Your task to perform on an android device: Add "apple airpods pro" to the cart on amazon.com Image 0: 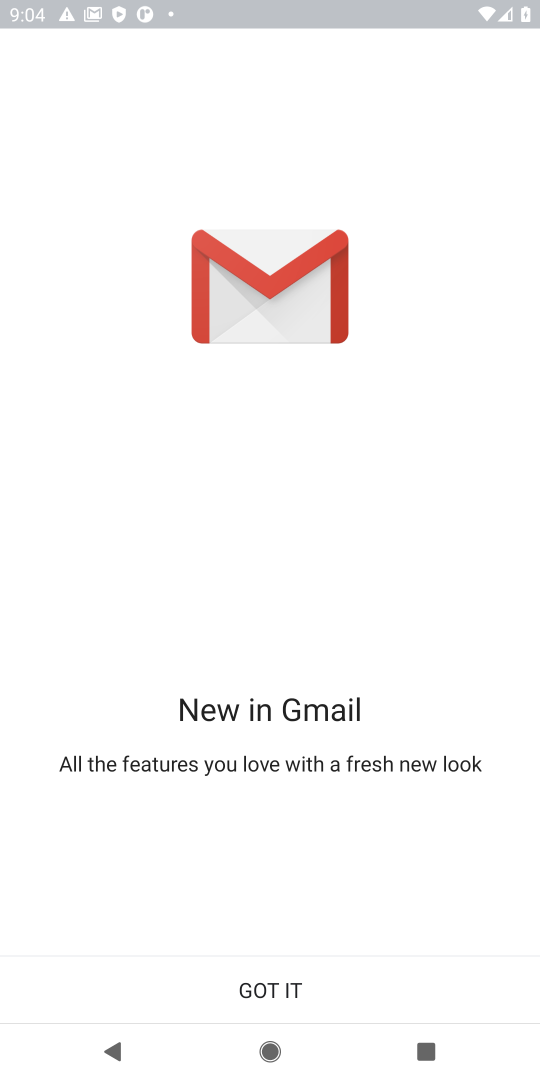
Step 0: press home button
Your task to perform on an android device: Add "apple airpods pro" to the cart on amazon.com Image 1: 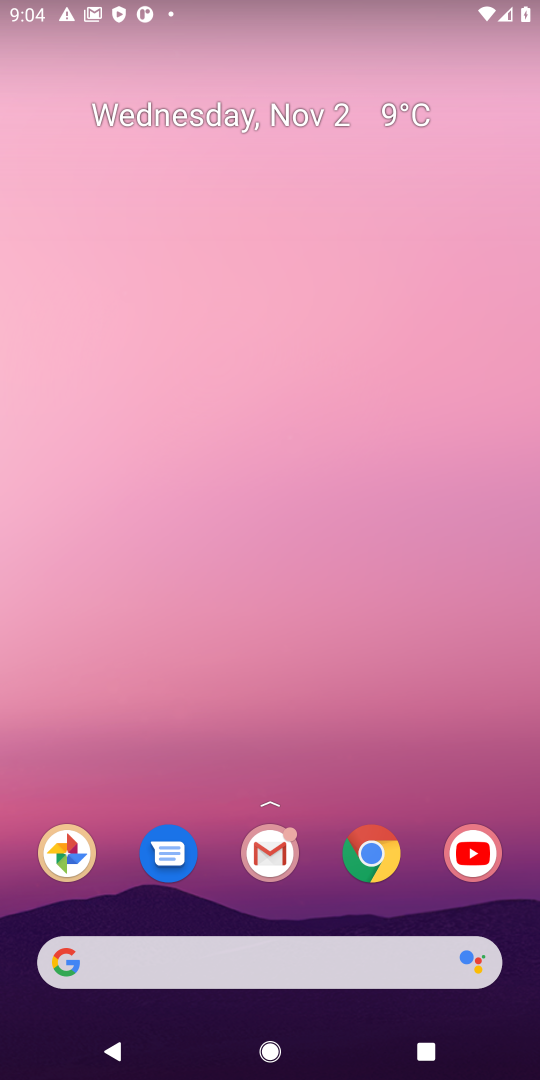
Step 1: click (375, 848)
Your task to perform on an android device: Add "apple airpods pro" to the cart on amazon.com Image 2: 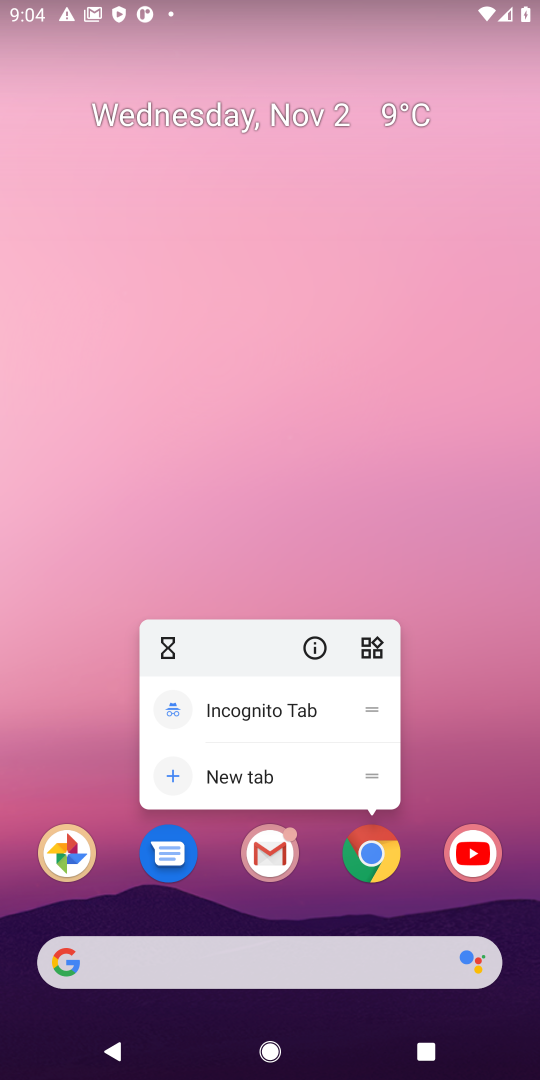
Step 2: click (375, 849)
Your task to perform on an android device: Add "apple airpods pro" to the cart on amazon.com Image 3: 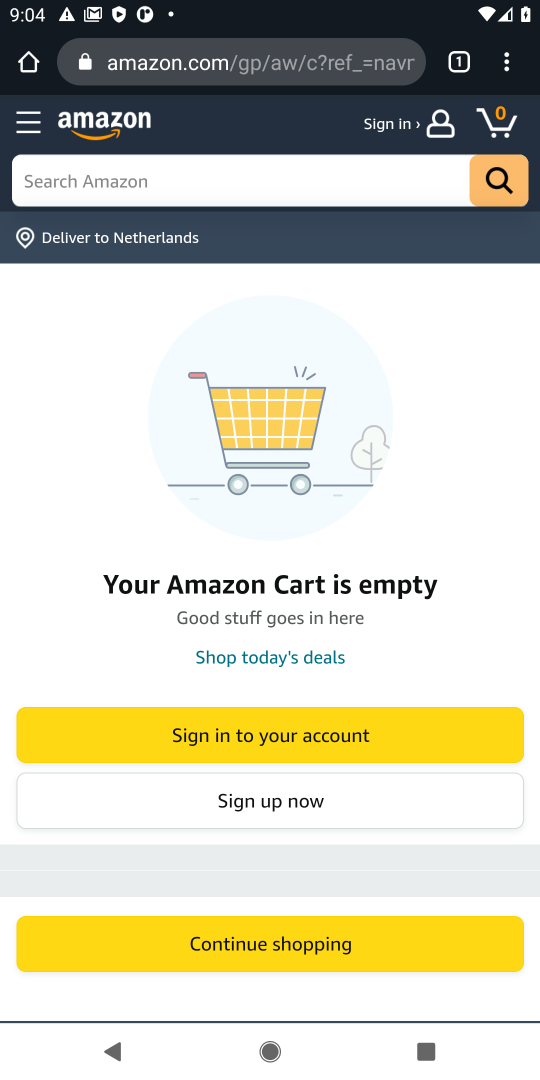
Step 3: click (275, 54)
Your task to perform on an android device: Add "apple airpods pro" to the cart on amazon.com Image 4: 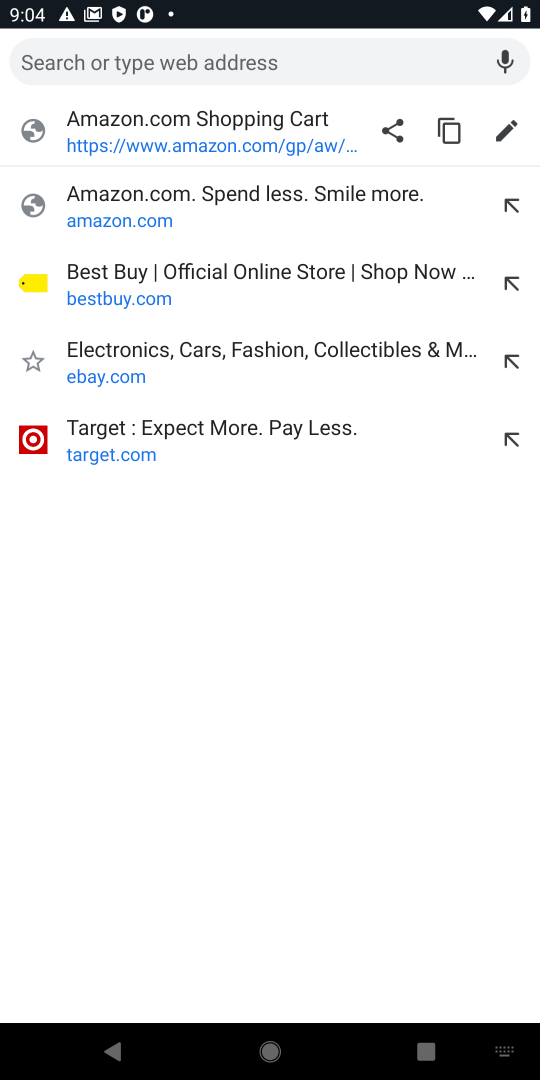
Step 4: click (173, 125)
Your task to perform on an android device: Add "apple airpods pro" to the cart on amazon.com Image 5: 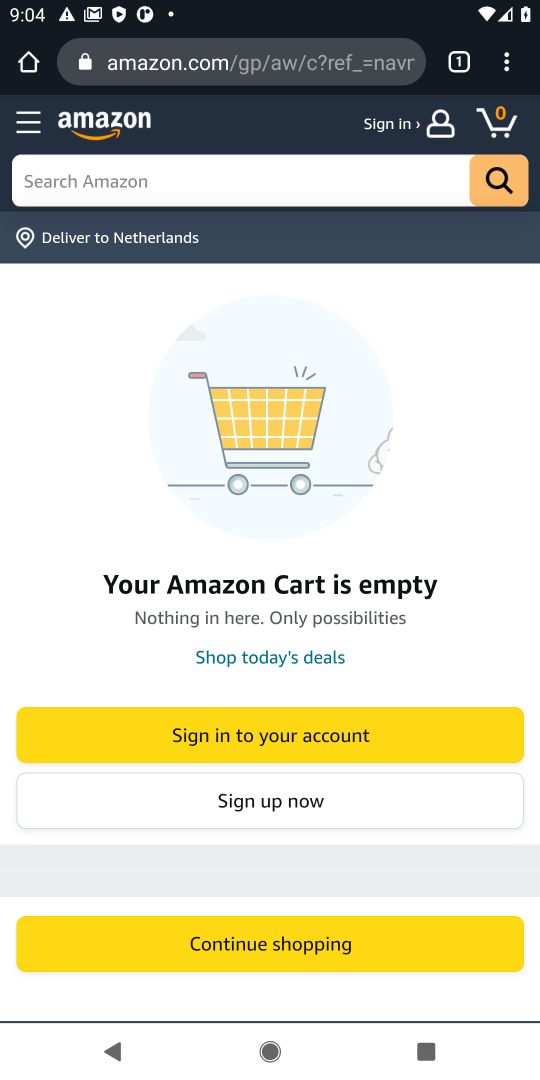
Step 5: click (129, 171)
Your task to perform on an android device: Add "apple airpods pro" to the cart on amazon.com Image 6: 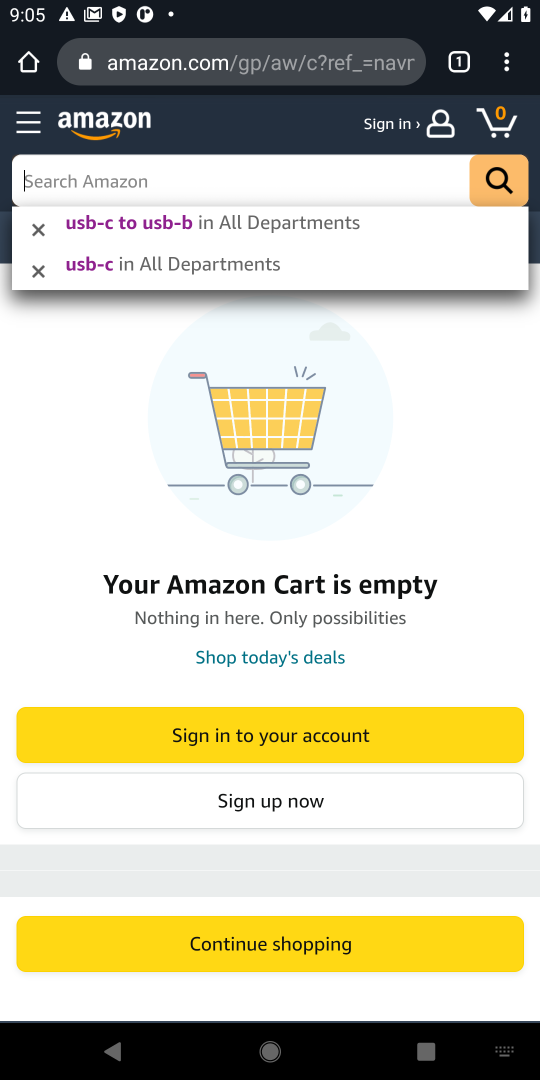
Step 6: type "apple airpods pro"
Your task to perform on an android device: Add "apple airpods pro" to the cart on amazon.com Image 7: 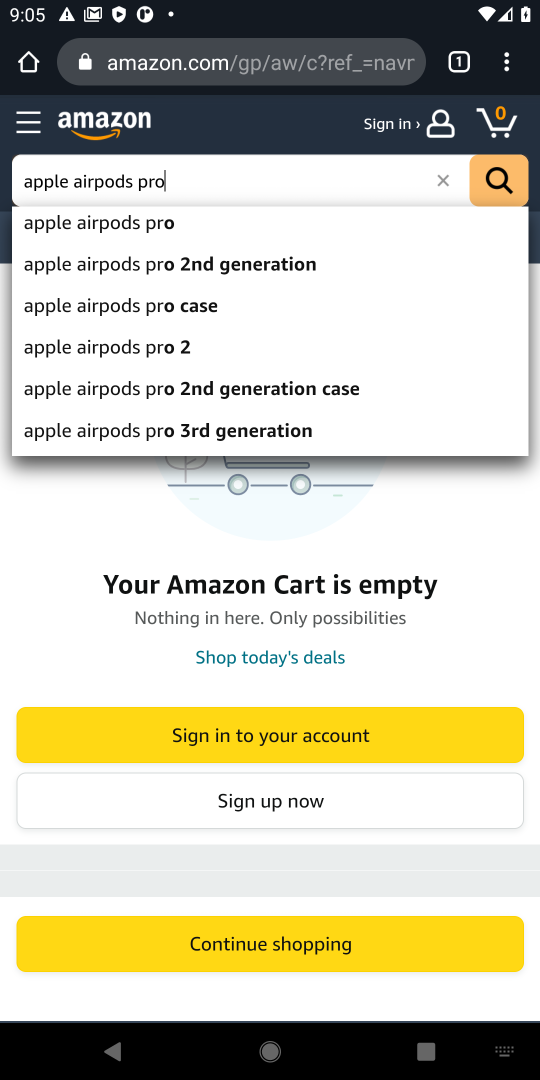
Step 7: press enter
Your task to perform on an android device: Add "apple airpods pro" to the cart on amazon.com Image 8: 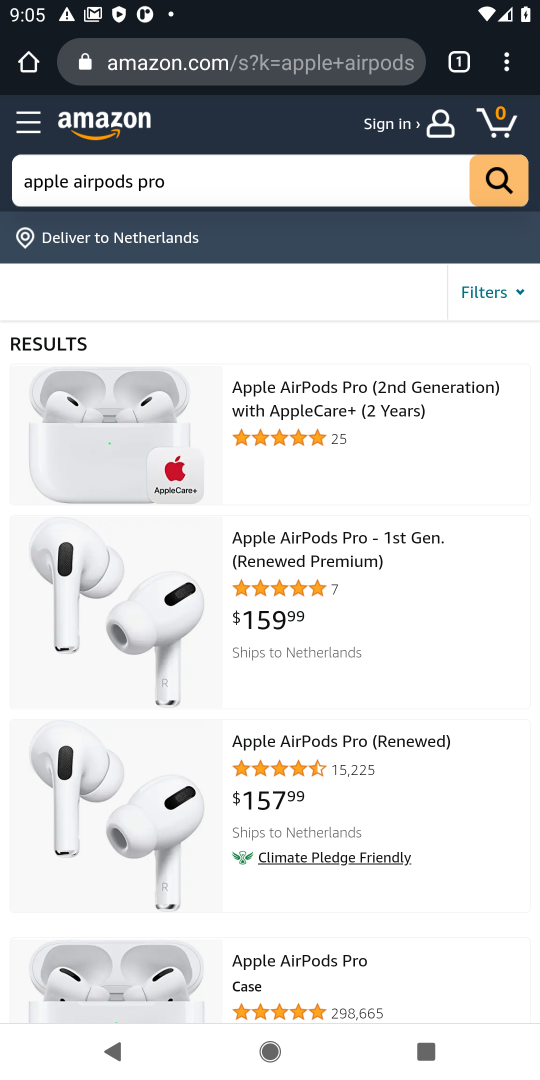
Step 8: click (297, 401)
Your task to perform on an android device: Add "apple airpods pro" to the cart on amazon.com Image 9: 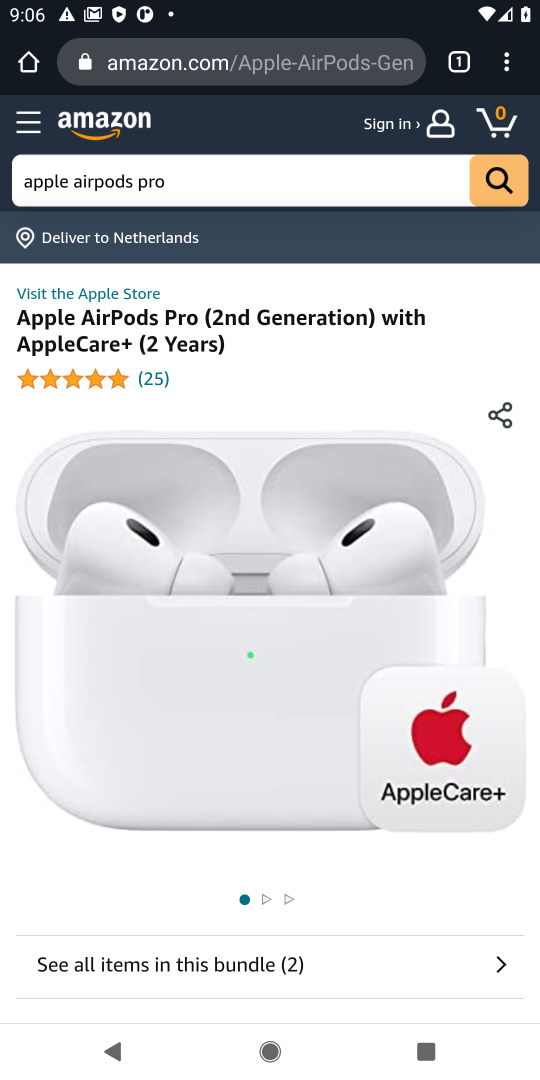
Step 9: drag from (207, 881) to (319, 630)
Your task to perform on an android device: Add "apple airpods pro" to the cart on amazon.com Image 10: 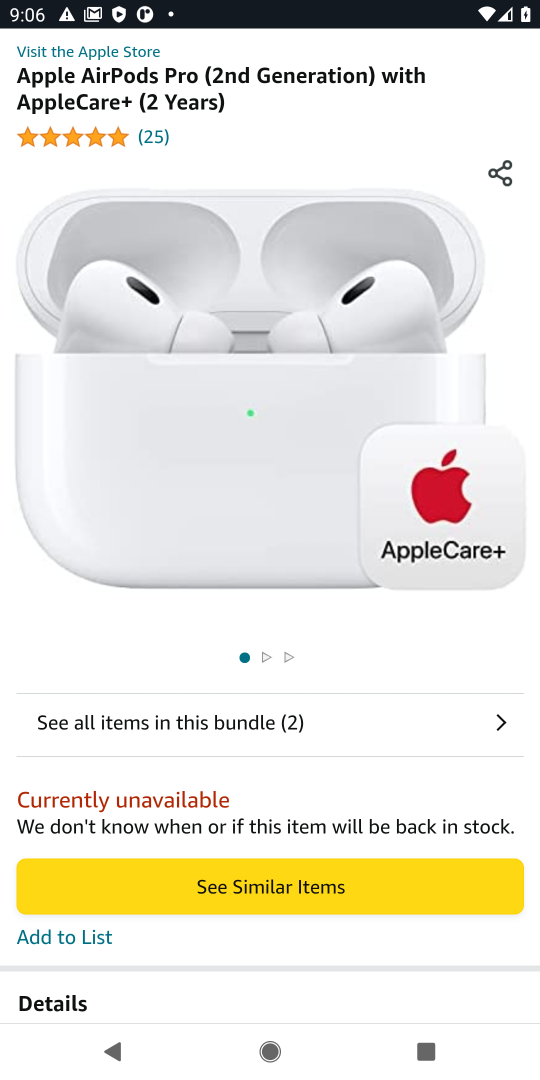
Step 10: drag from (273, 773) to (353, 187)
Your task to perform on an android device: Add "apple airpods pro" to the cart on amazon.com Image 11: 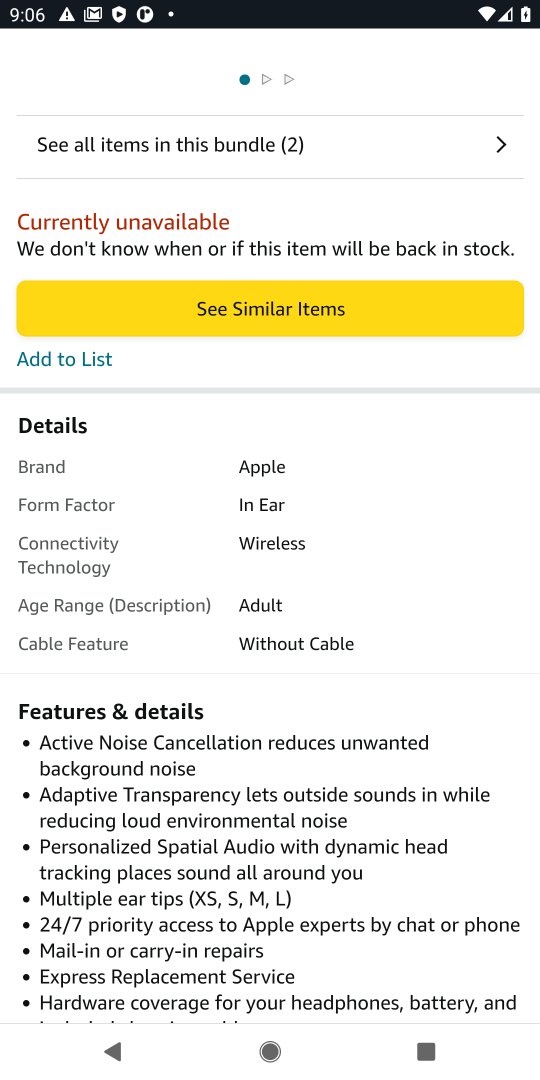
Step 11: press back button
Your task to perform on an android device: Add "apple airpods pro" to the cart on amazon.com Image 12: 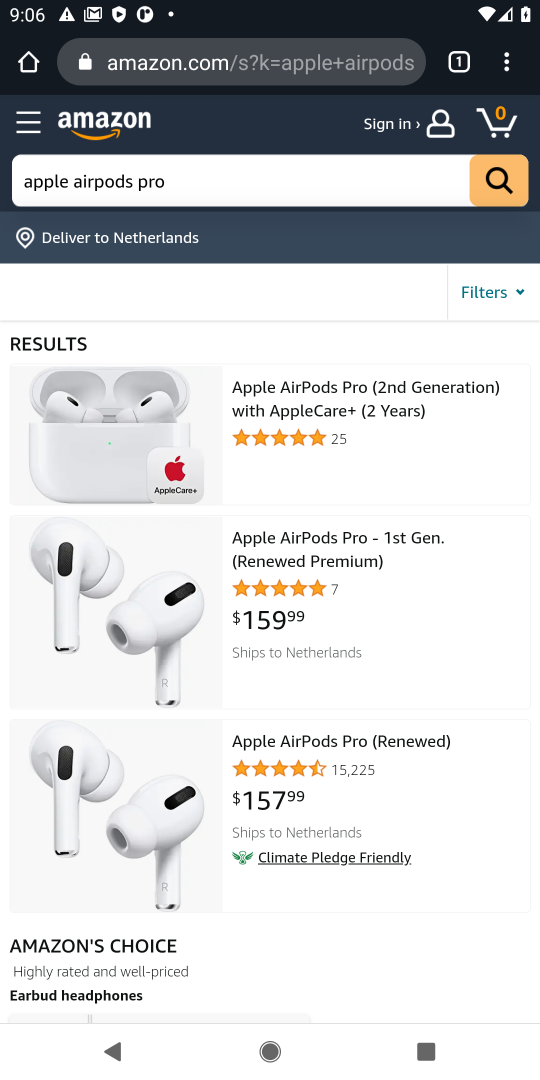
Step 12: click (324, 588)
Your task to perform on an android device: Add "apple airpods pro" to the cart on amazon.com Image 13: 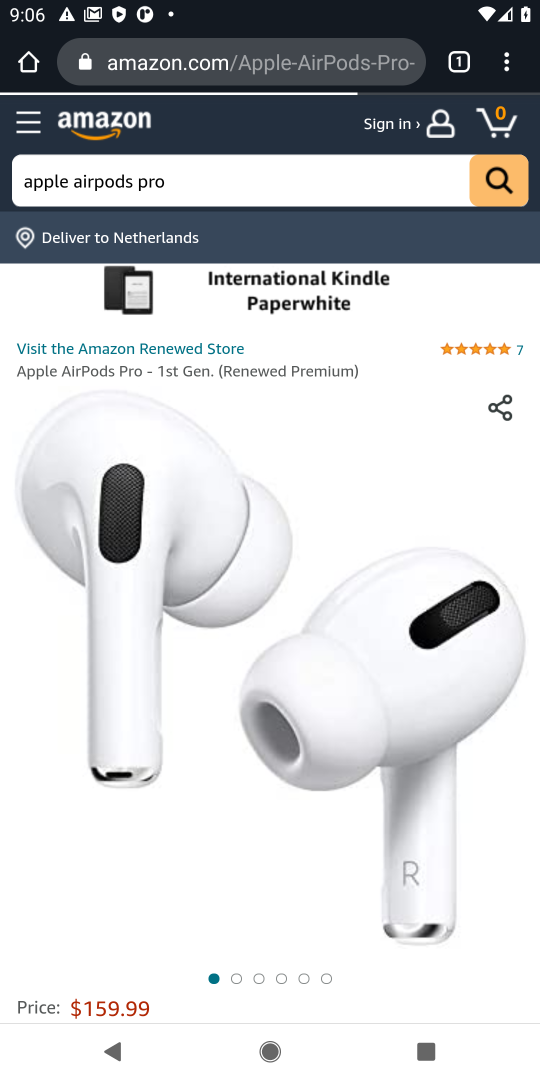
Step 13: drag from (201, 864) to (342, 275)
Your task to perform on an android device: Add "apple airpods pro" to the cart on amazon.com Image 14: 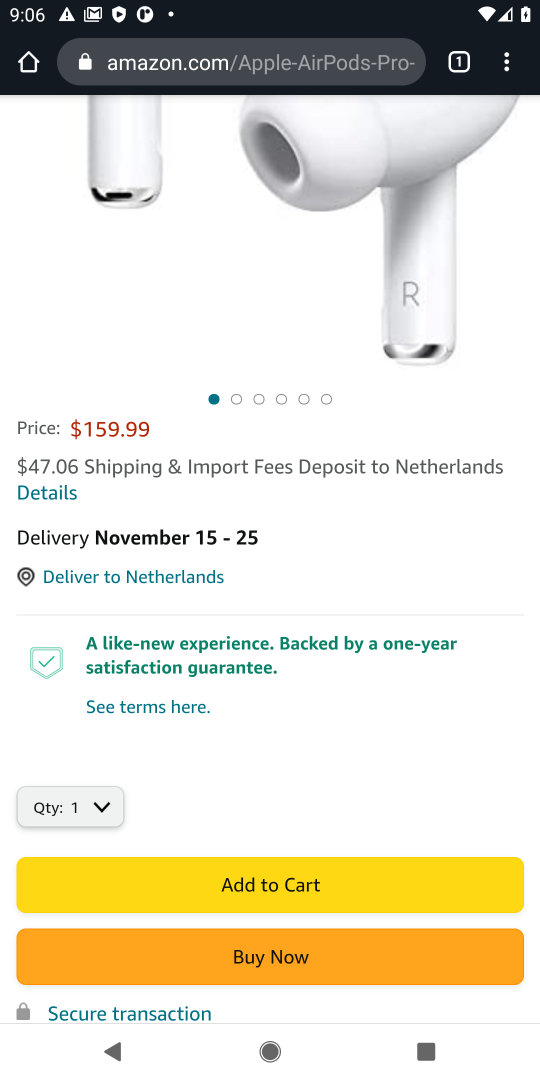
Step 14: click (254, 885)
Your task to perform on an android device: Add "apple airpods pro" to the cart on amazon.com Image 15: 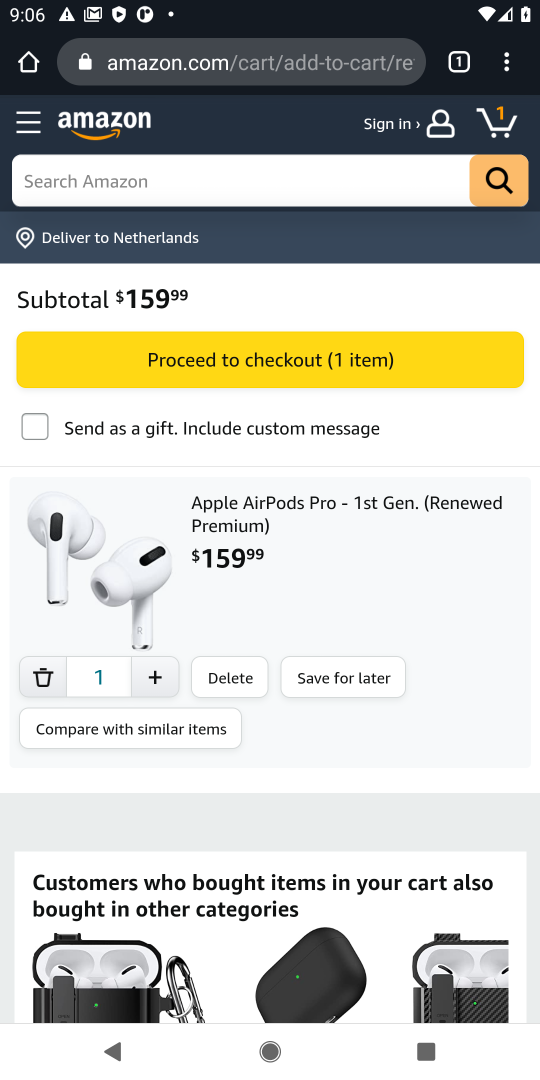
Step 15: task complete